Your task to perform on an android device: turn off javascript in the chrome app Image 0: 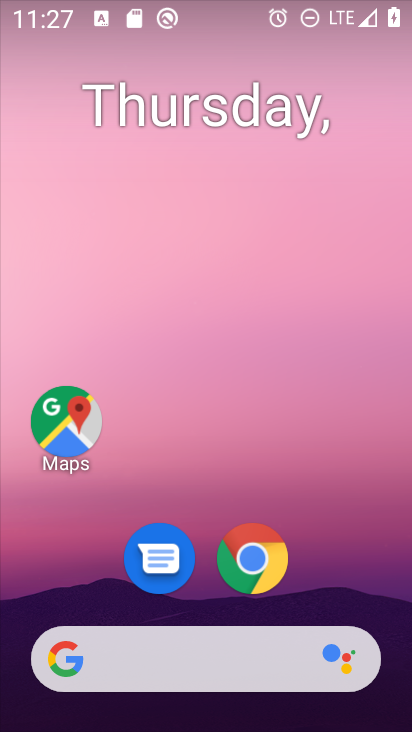
Step 0: click (252, 554)
Your task to perform on an android device: turn off javascript in the chrome app Image 1: 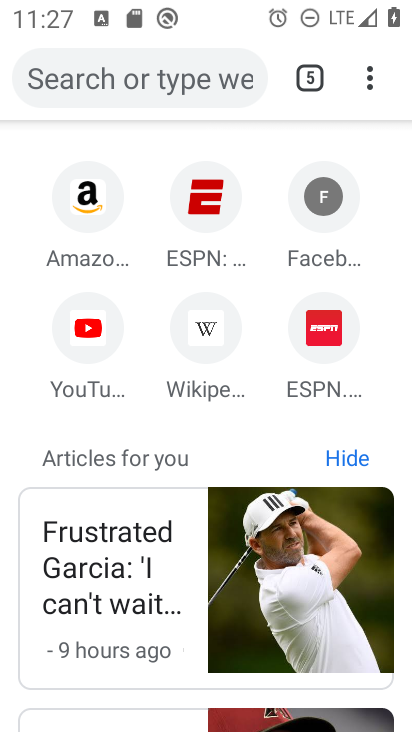
Step 1: click (370, 75)
Your task to perform on an android device: turn off javascript in the chrome app Image 2: 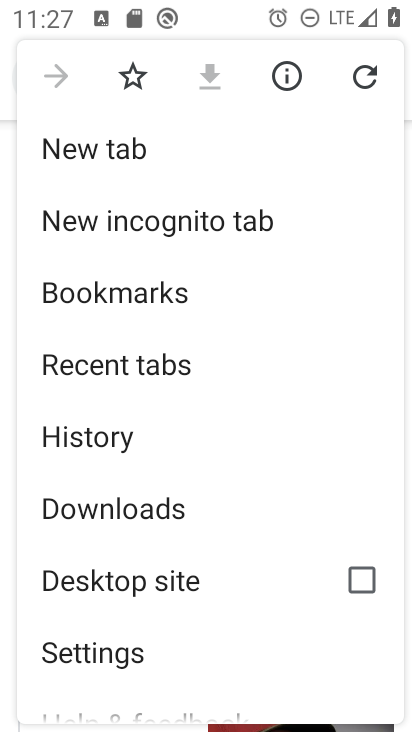
Step 2: click (83, 650)
Your task to perform on an android device: turn off javascript in the chrome app Image 3: 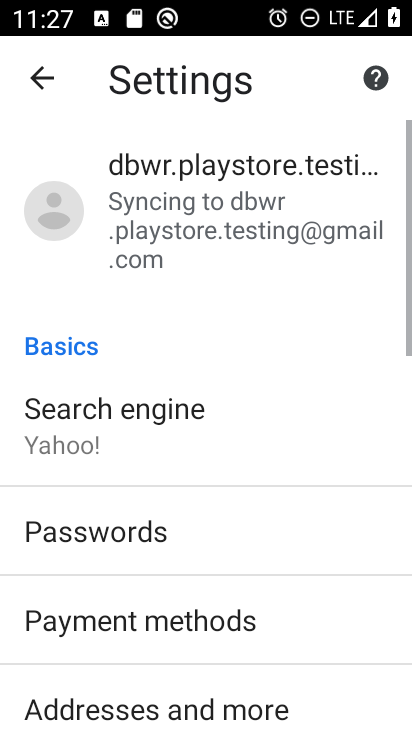
Step 3: drag from (301, 671) to (289, 130)
Your task to perform on an android device: turn off javascript in the chrome app Image 4: 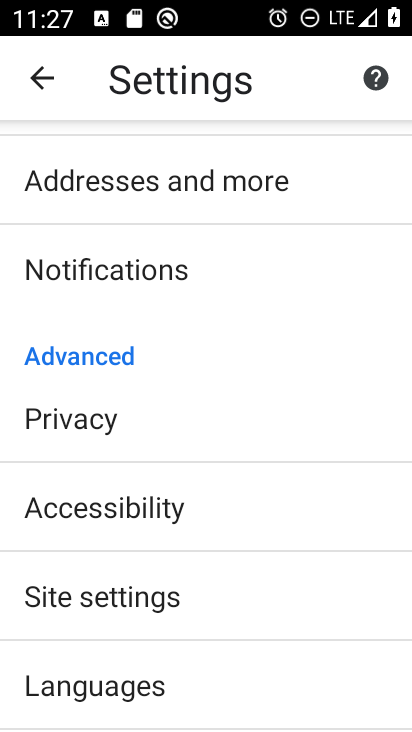
Step 4: click (78, 600)
Your task to perform on an android device: turn off javascript in the chrome app Image 5: 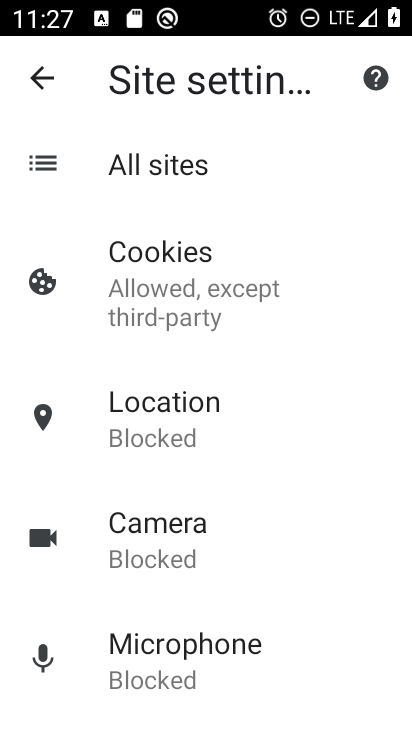
Step 5: drag from (243, 644) to (265, 142)
Your task to perform on an android device: turn off javascript in the chrome app Image 6: 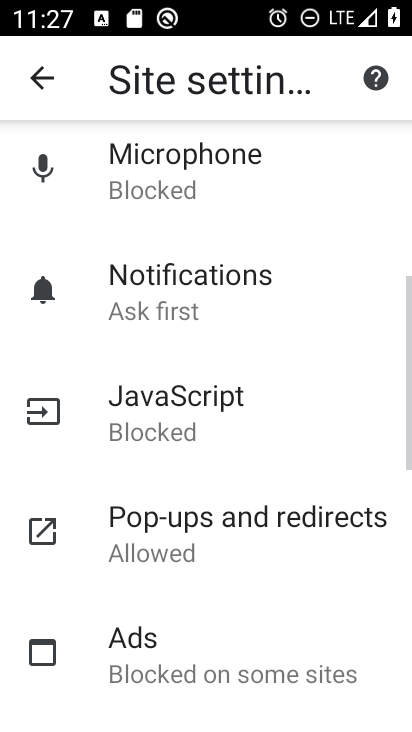
Step 6: click (156, 404)
Your task to perform on an android device: turn off javascript in the chrome app Image 7: 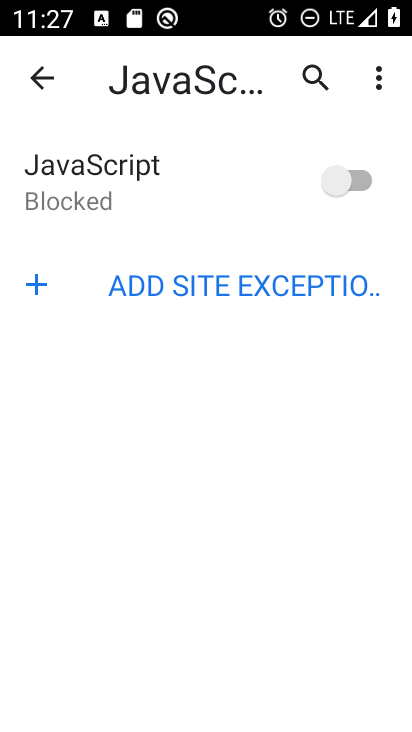
Step 7: task complete